Your task to perform on an android device: Open Yahoo.com Image 0: 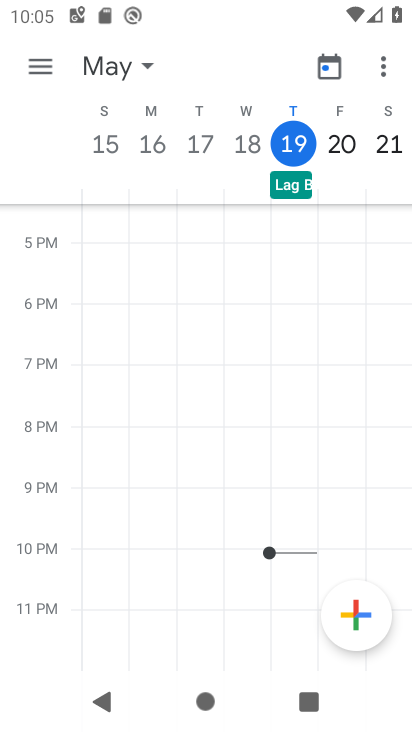
Step 0: press home button
Your task to perform on an android device: Open Yahoo.com Image 1: 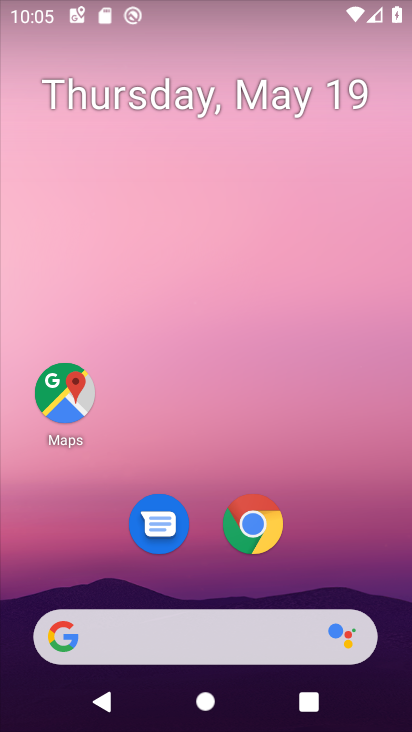
Step 1: click (262, 634)
Your task to perform on an android device: Open Yahoo.com Image 2: 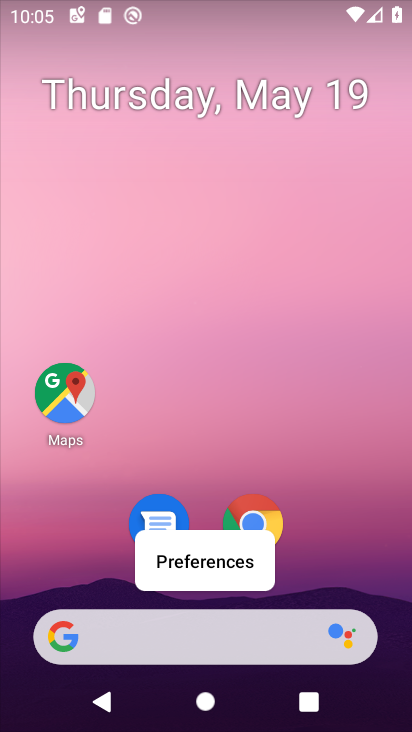
Step 2: click (221, 644)
Your task to perform on an android device: Open Yahoo.com Image 3: 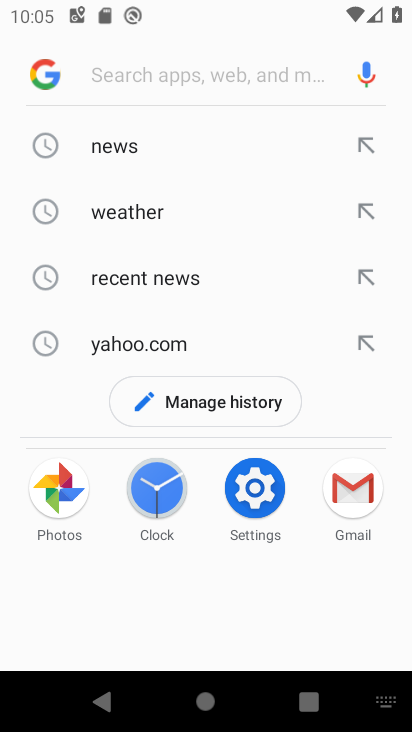
Step 3: click (156, 338)
Your task to perform on an android device: Open Yahoo.com Image 4: 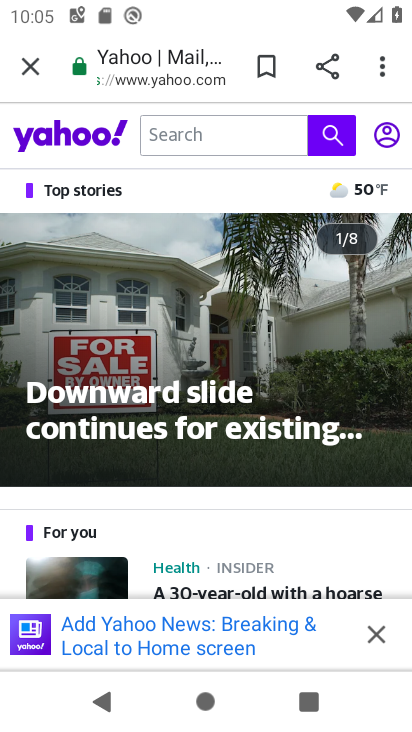
Step 4: task complete